Your task to perform on an android device: Search for vegetarian restaurants on Maps Image 0: 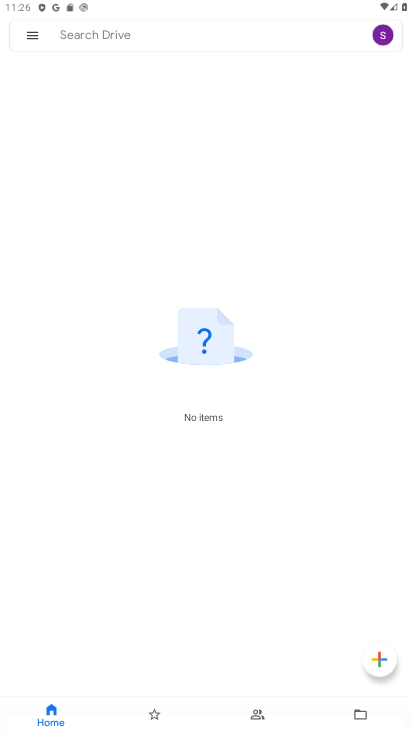
Step 0: press home button
Your task to perform on an android device: Search for vegetarian restaurants on Maps Image 1: 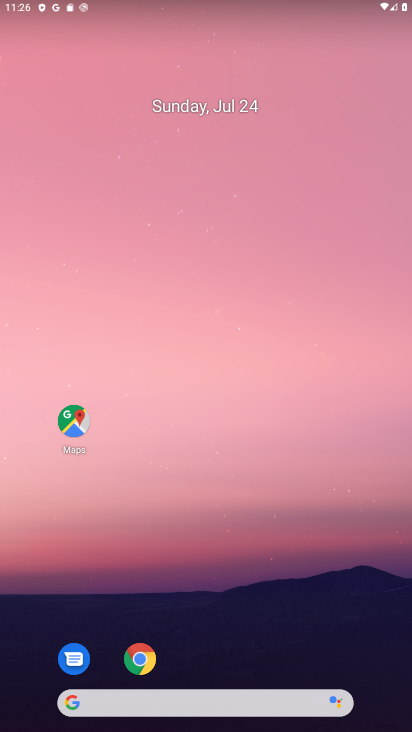
Step 1: click (77, 413)
Your task to perform on an android device: Search for vegetarian restaurants on Maps Image 2: 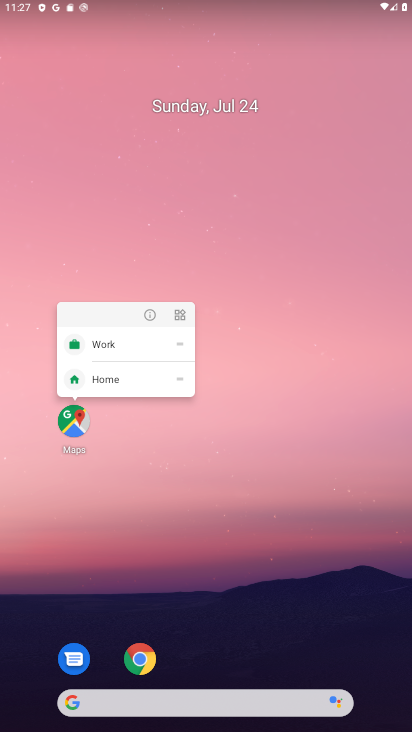
Step 2: click (63, 416)
Your task to perform on an android device: Search for vegetarian restaurants on Maps Image 3: 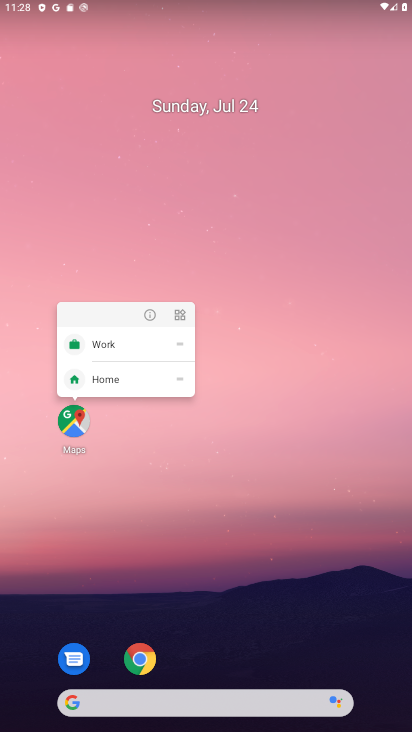
Step 3: click (71, 417)
Your task to perform on an android device: Search for vegetarian restaurants on Maps Image 4: 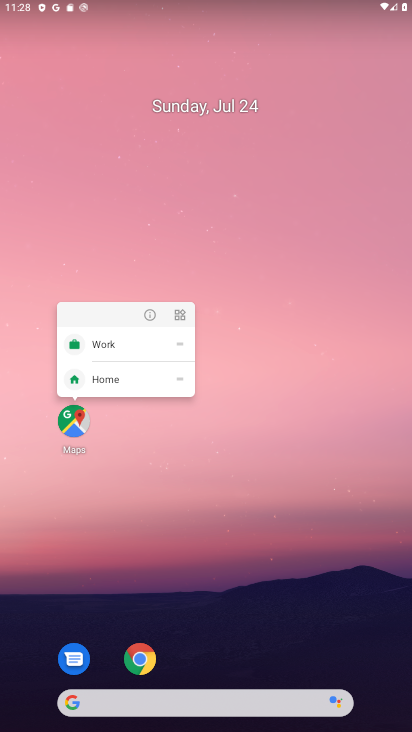
Step 4: click (71, 417)
Your task to perform on an android device: Search for vegetarian restaurants on Maps Image 5: 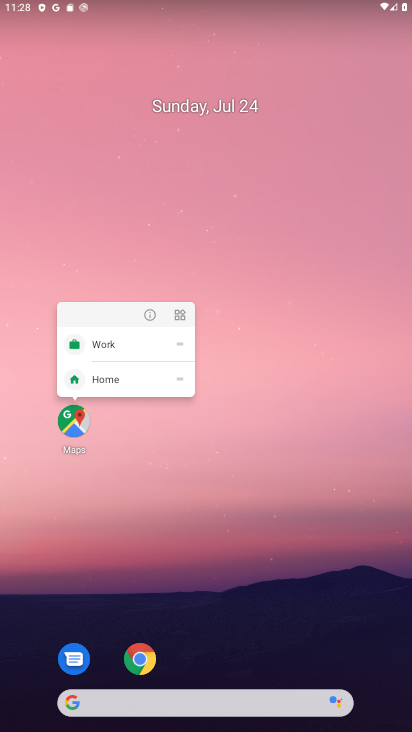
Step 5: click (70, 434)
Your task to perform on an android device: Search for vegetarian restaurants on Maps Image 6: 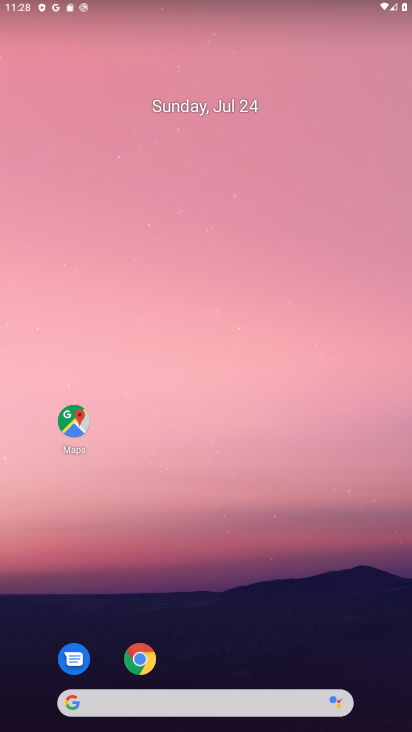
Step 6: click (80, 426)
Your task to perform on an android device: Search for vegetarian restaurants on Maps Image 7: 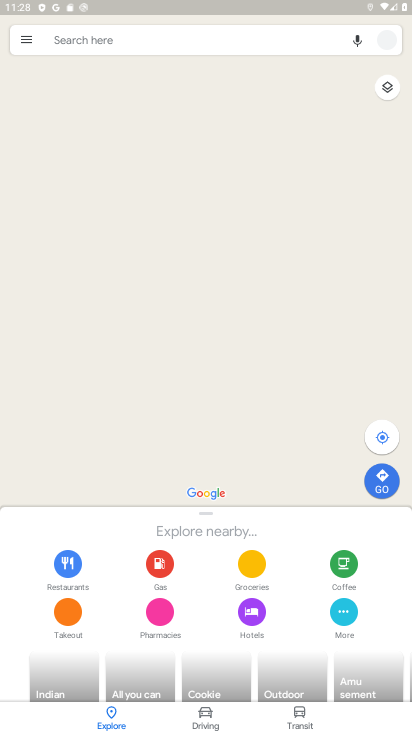
Step 7: click (222, 42)
Your task to perform on an android device: Search for vegetarian restaurants on Maps Image 8: 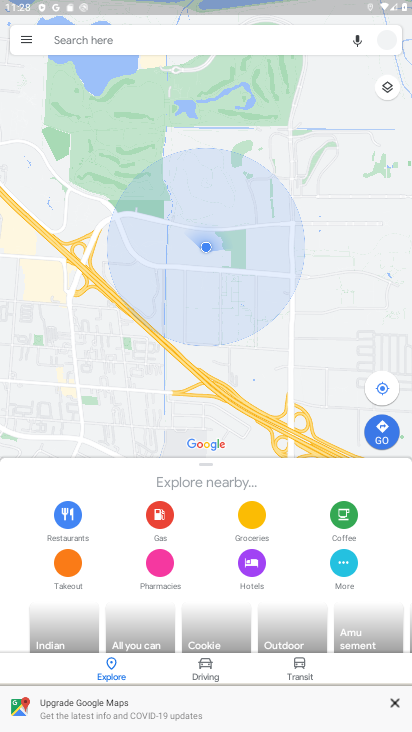
Step 8: click (174, 33)
Your task to perform on an android device: Search for vegetarian restaurants on Maps Image 9: 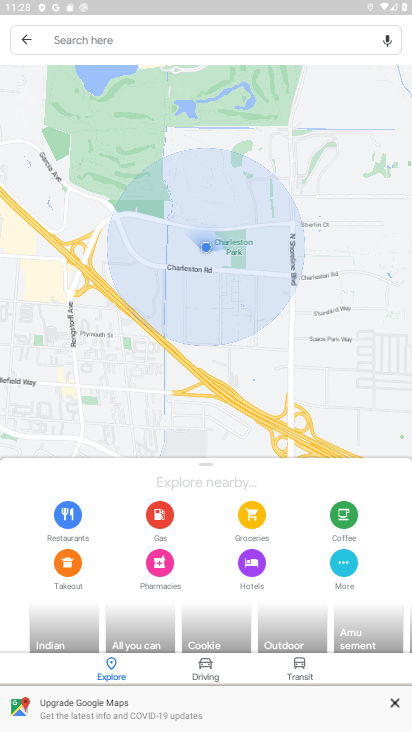
Step 9: click (174, 33)
Your task to perform on an android device: Search for vegetarian restaurants on Maps Image 10: 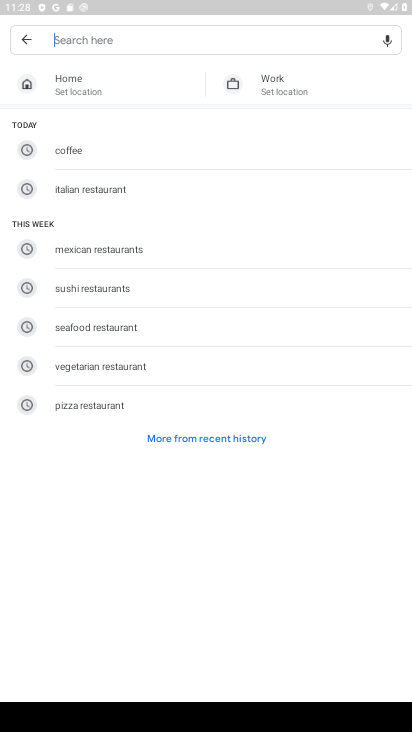
Step 10: click (94, 369)
Your task to perform on an android device: Search for vegetarian restaurants on Maps Image 11: 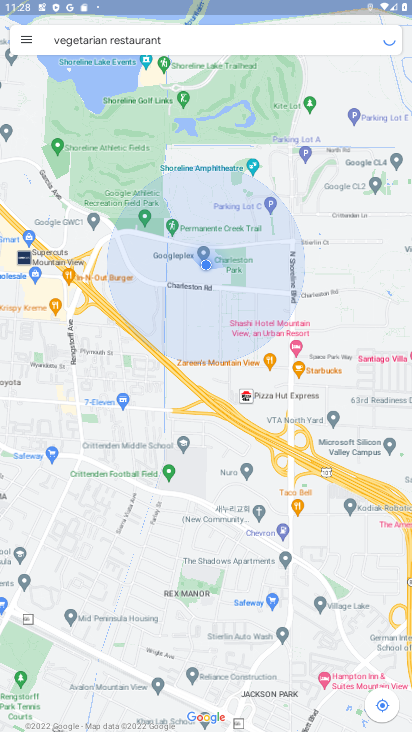
Step 11: task complete